Your task to perform on an android device: change the clock display to analog Image 0: 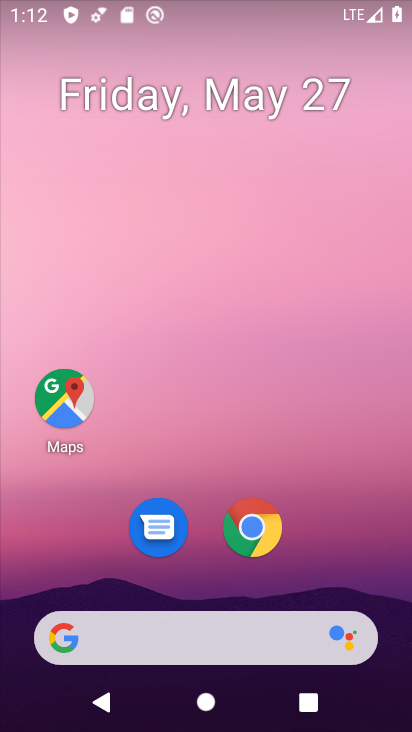
Step 0: drag from (220, 673) to (225, 166)
Your task to perform on an android device: change the clock display to analog Image 1: 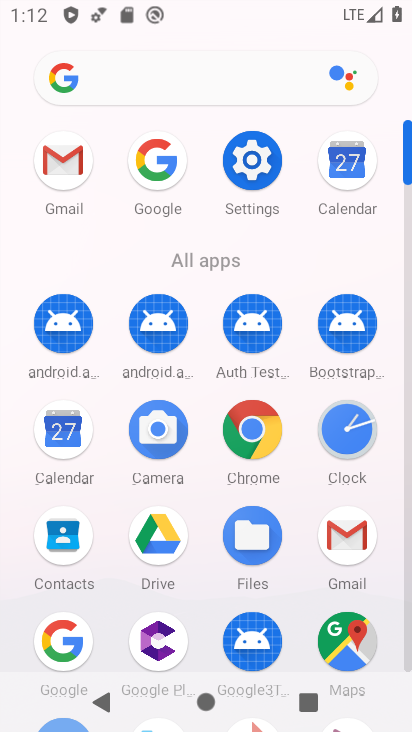
Step 1: click (352, 415)
Your task to perform on an android device: change the clock display to analog Image 2: 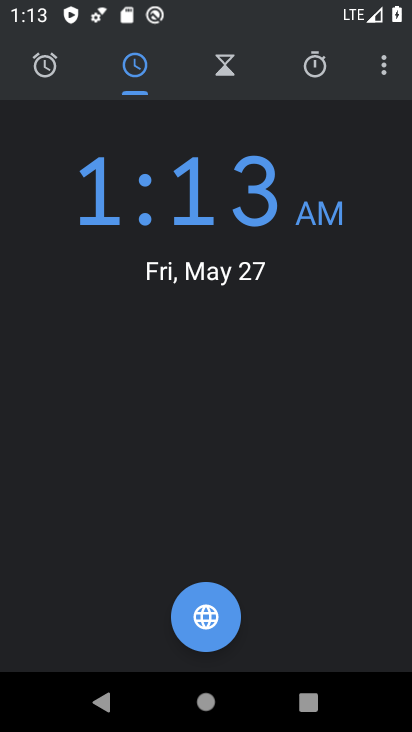
Step 2: click (383, 63)
Your task to perform on an android device: change the clock display to analog Image 3: 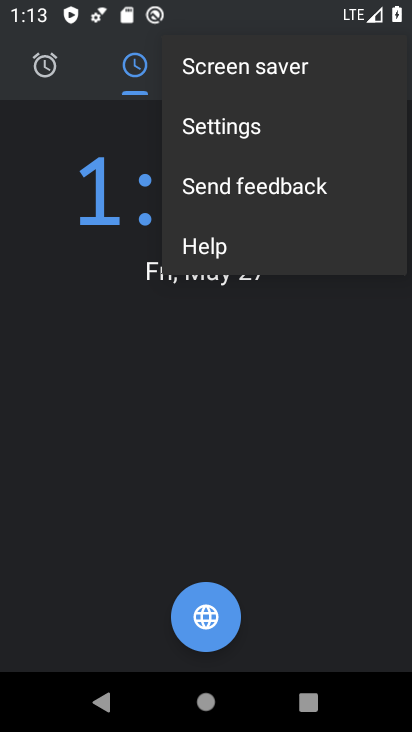
Step 3: click (250, 125)
Your task to perform on an android device: change the clock display to analog Image 4: 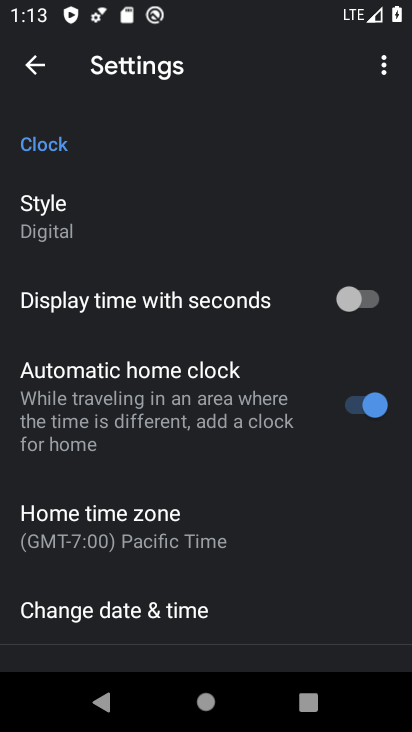
Step 4: click (135, 220)
Your task to perform on an android device: change the clock display to analog Image 5: 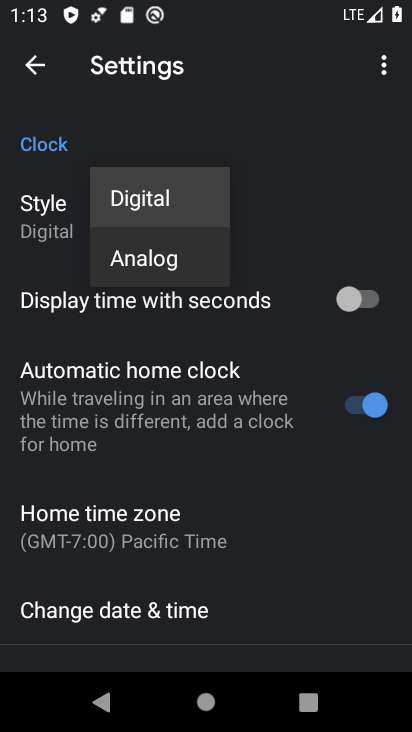
Step 5: click (125, 262)
Your task to perform on an android device: change the clock display to analog Image 6: 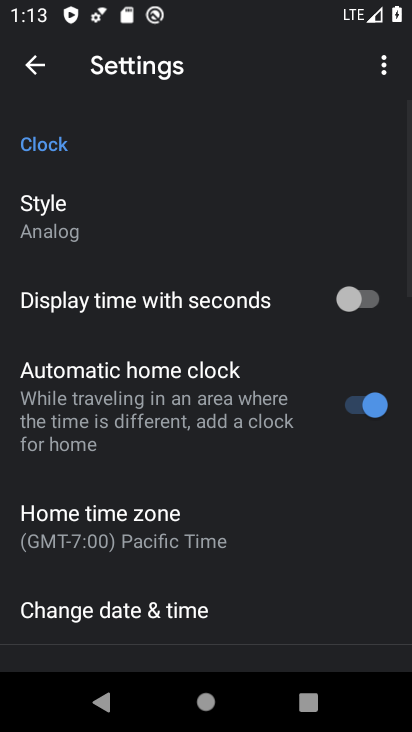
Step 6: task complete